Your task to perform on an android device: Go to notification settings Image 0: 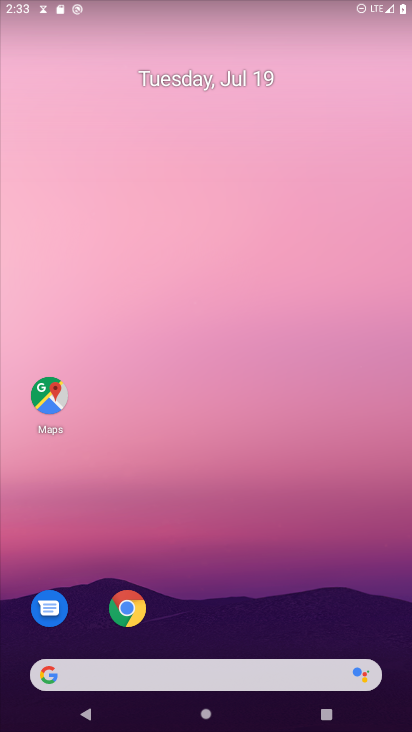
Step 0: drag from (253, 671) to (284, 1)
Your task to perform on an android device: Go to notification settings Image 1: 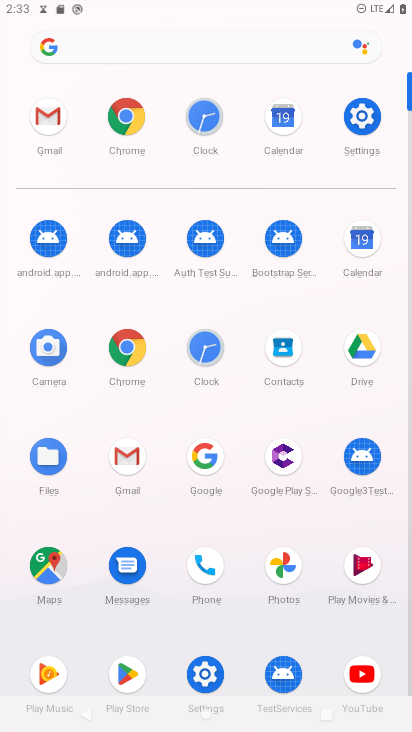
Step 1: click (363, 106)
Your task to perform on an android device: Go to notification settings Image 2: 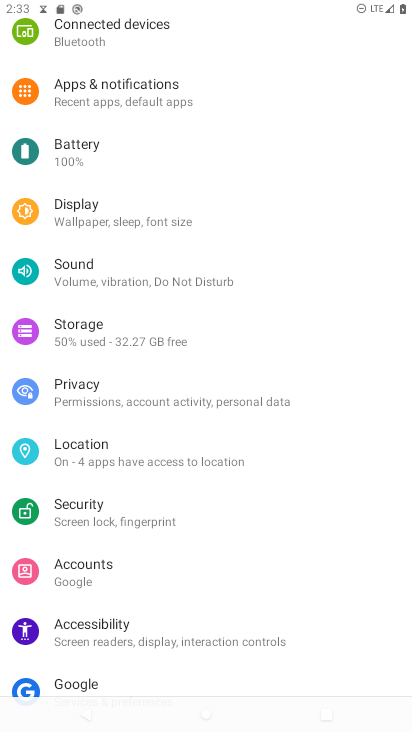
Step 2: click (150, 89)
Your task to perform on an android device: Go to notification settings Image 3: 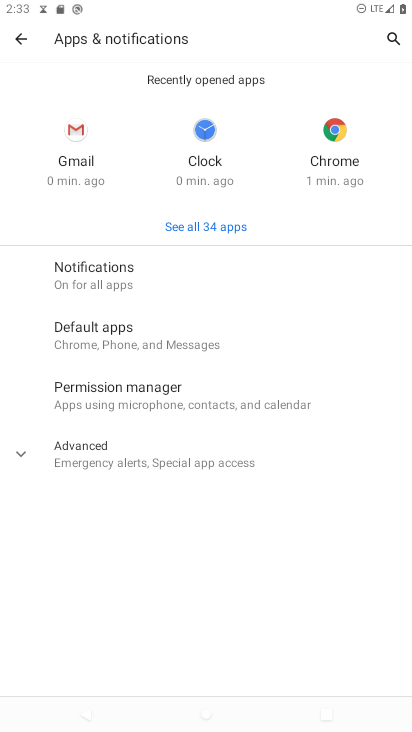
Step 3: click (148, 272)
Your task to perform on an android device: Go to notification settings Image 4: 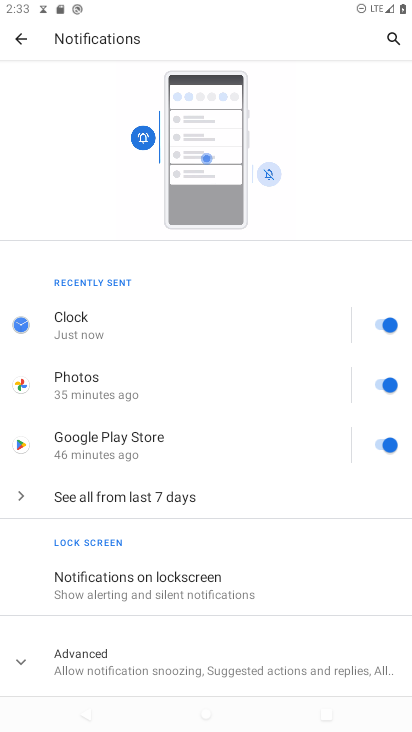
Step 4: task complete